Your task to perform on an android device: manage bookmarks in the chrome app Image 0: 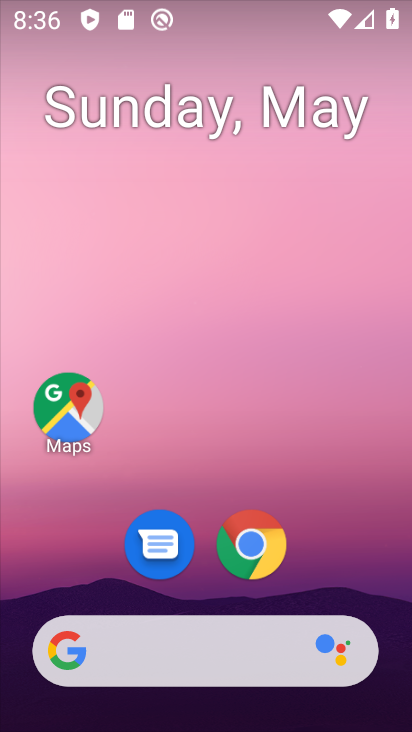
Step 0: drag from (345, 459) to (186, 32)
Your task to perform on an android device: manage bookmarks in the chrome app Image 1: 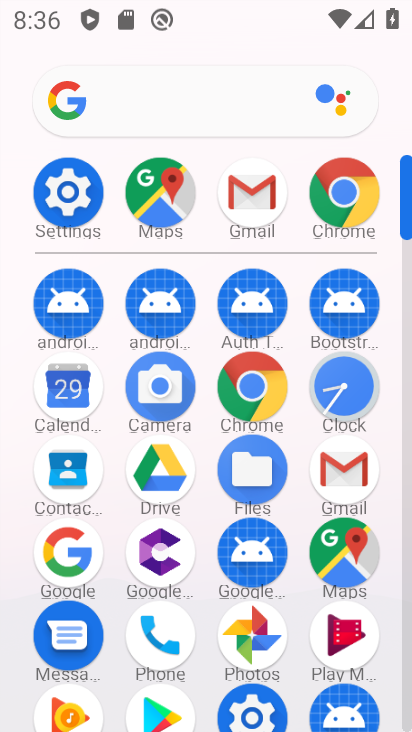
Step 1: click (348, 207)
Your task to perform on an android device: manage bookmarks in the chrome app Image 2: 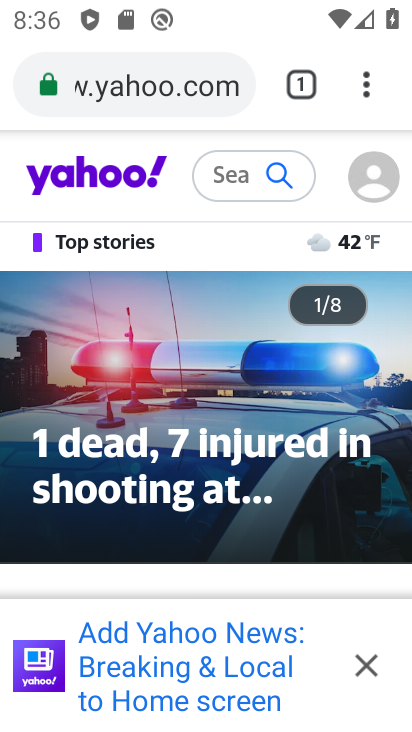
Step 2: drag from (382, 93) to (112, 329)
Your task to perform on an android device: manage bookmarks in the chrome app Image 3: 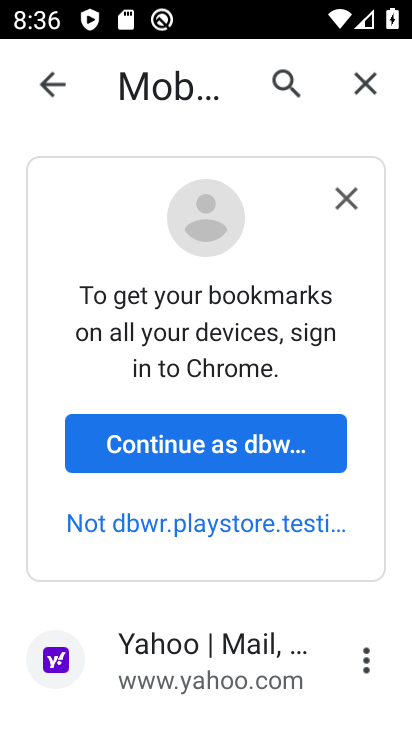
Step 3: drag from (211, 604) to (190, 288)
Your task to perform on an android device: manage bookmarks in the chrome app Image 4: 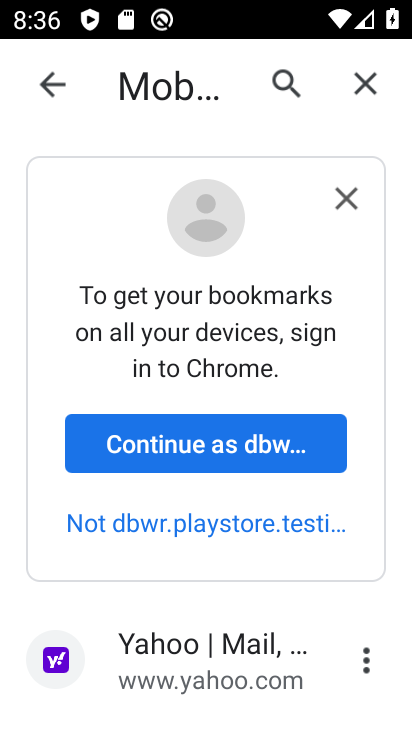
Step 4: click (197, 467)
Your task to perform on an android device: manage bookmarks in the chrome app Image 5: 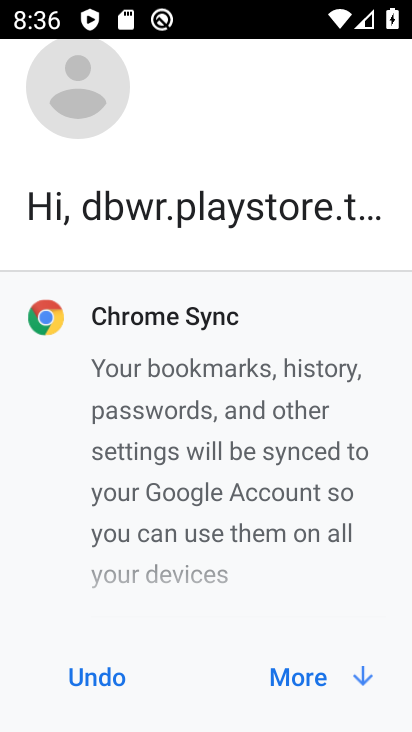
Step 5: click (316, 683)
Your task to perform on an android device: manage bookmarks in the chrome app Image 6: 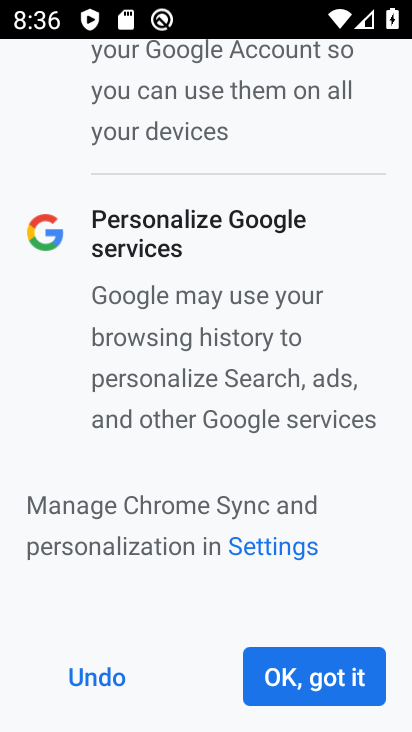
Step 6: click (316, 683)
Your task to perform on an android device: manage bookmarks in the chrome app Image 7: 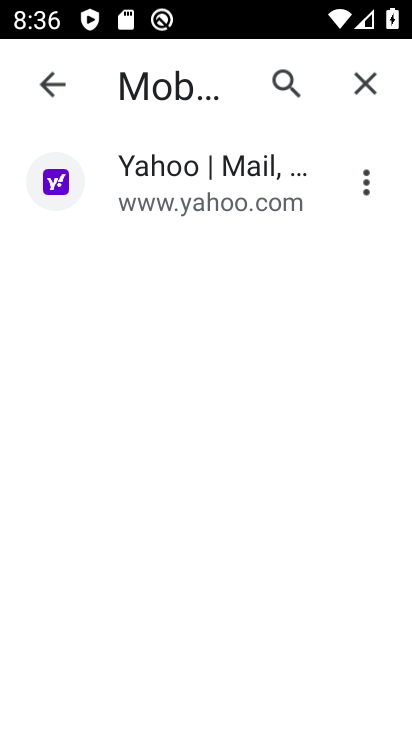
Step 7: click (362, 167)
Your task to perform on an android device: manage bookmarks in the chrome app Image 8: 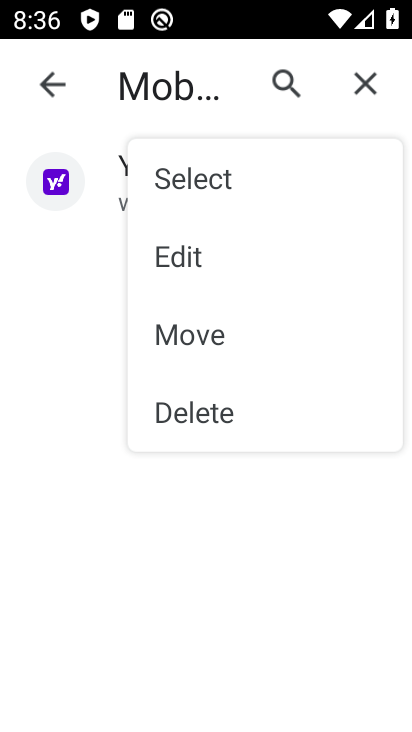
Step 8: click (167, 417)
Your task to perform on an android device: manage bookmarks in the chrome app Image 9: 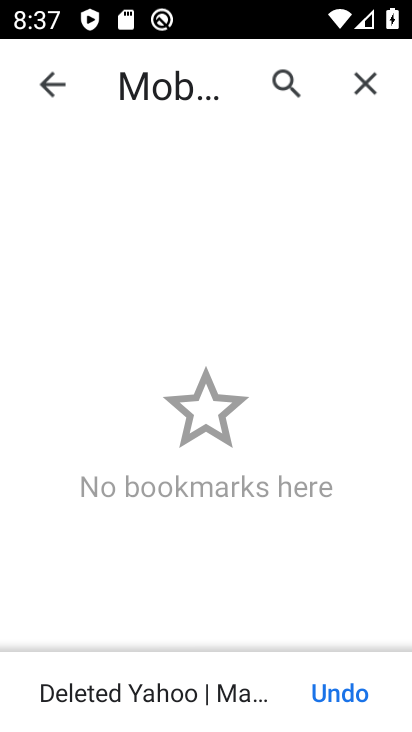
Step 9: task complete